Your task to perform on an android device: What's on my calendar tomorrow? Image 0: 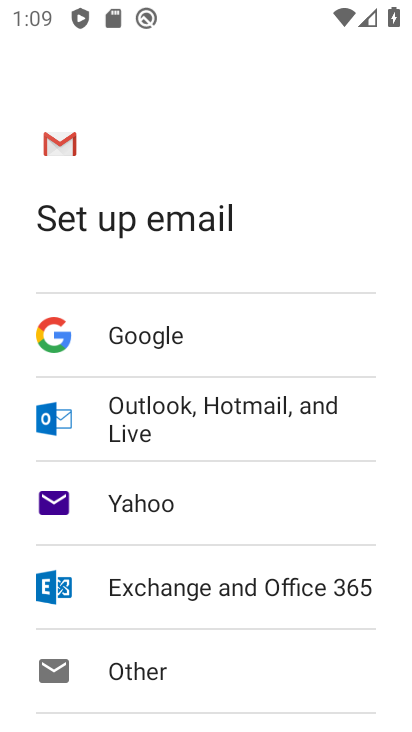
Step 0: press home button
Your task to perform on an android device: What's on my calendar tomorrow? Image 1: 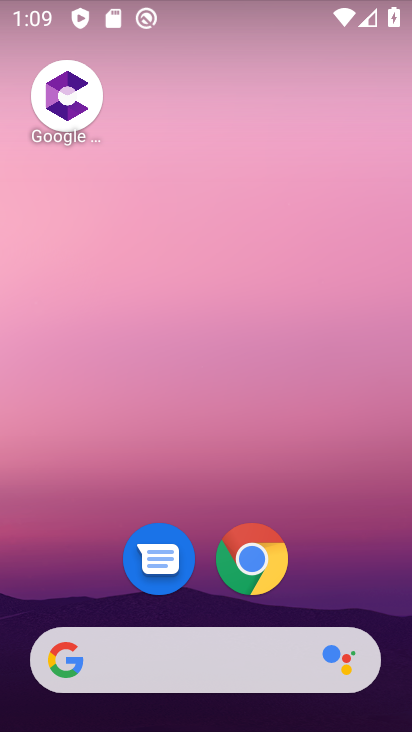
Step 1: drag from (321, 426) to (349, 117)
Your task to perform on an android device: What's on my calendar tomorrow? Image 2: 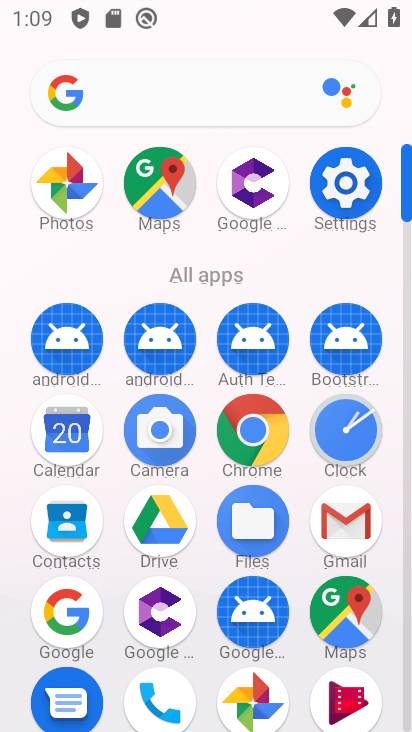
Step 2: click (56, 432)
Your task to perform on an android device: What's on my calendar tomorrow? Image 3: 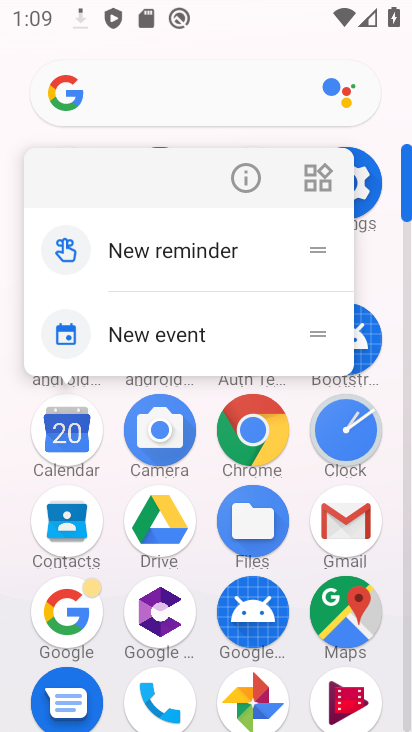
Step 3: click (72, 434)
Your task to perform on an android device: What's on my calendar tomorrow? Image 4: 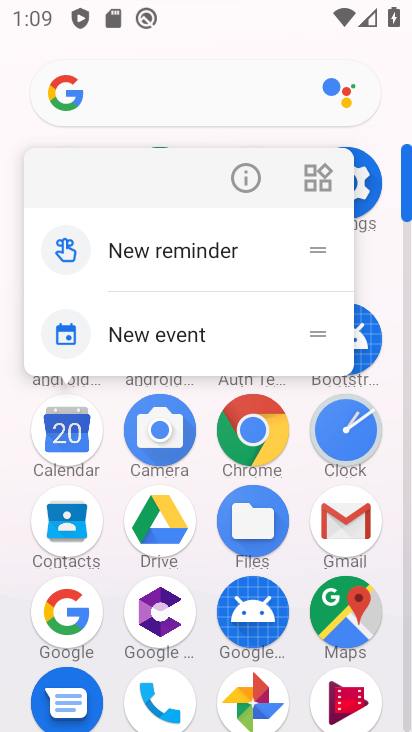
Step 4: click (67, 446)
Your task to perform on an android device: What's on my calendar tomorrow? Image 5: 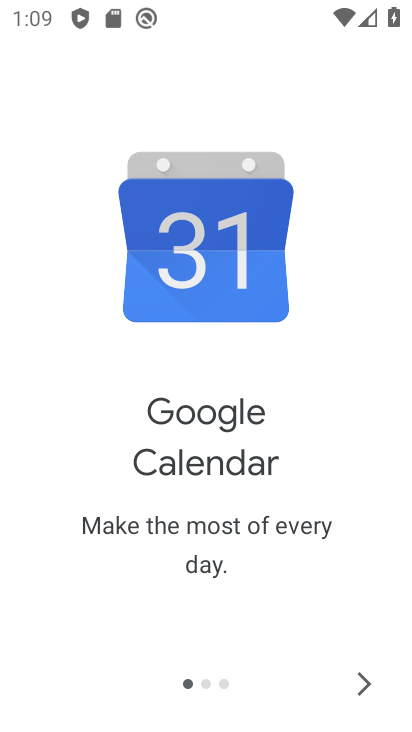
Step 5: click (370, 683)
Your task to perform on an android device: What's on my calendar tomorrow? Image 6: 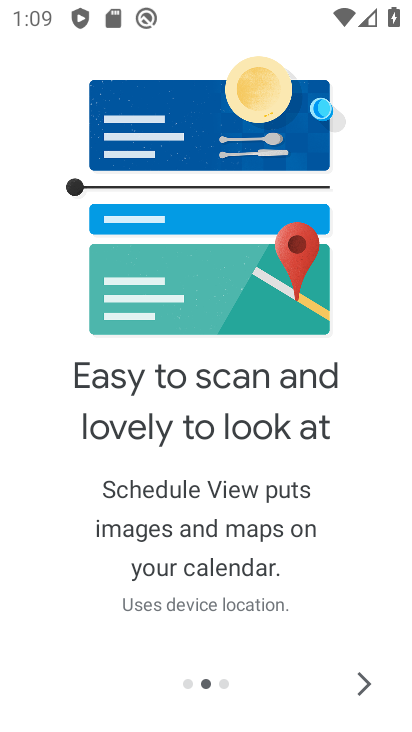
Step 6: click (370, 683)
Your task to perform on an android device: What's on my calendar tomorrow? Image 7: 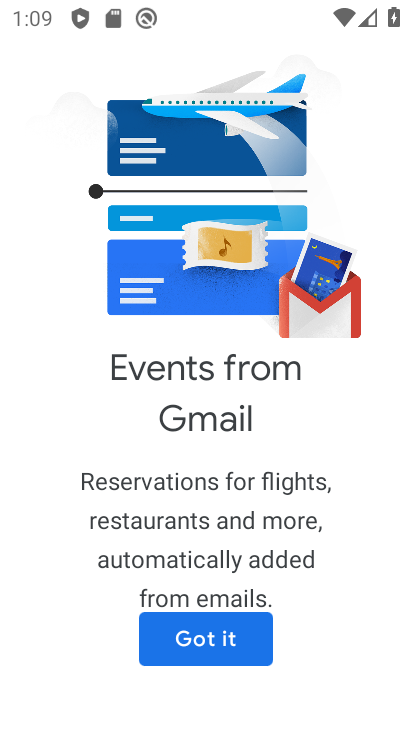
Step 7: click (238, 632)
Your task to perform on an android device: What's on my calendar tomorrow? Image 8: 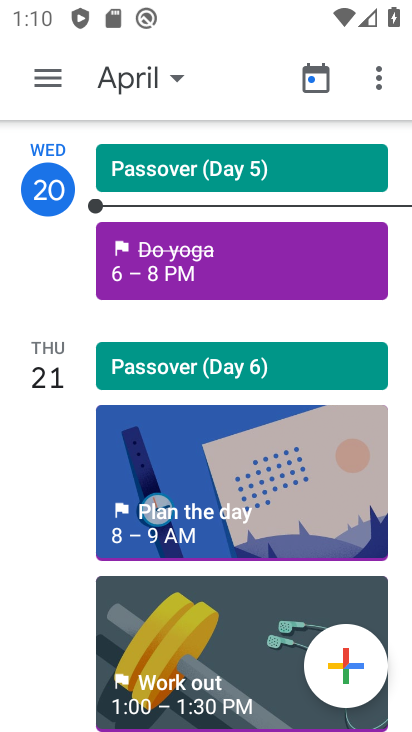
Step 8: click (150, 66)
Your task to perform on an android device: What's on my calendar tomorrow? Image 9: 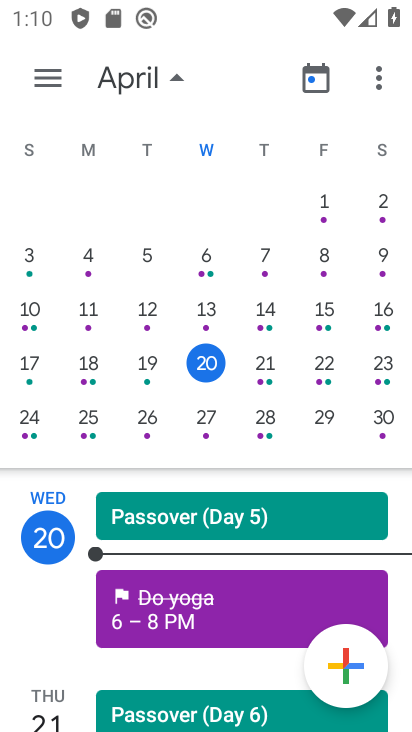
Step 9: click (264, 366)
Your task to perform on an android device: What's on my calendar tomorrow? Image 10: 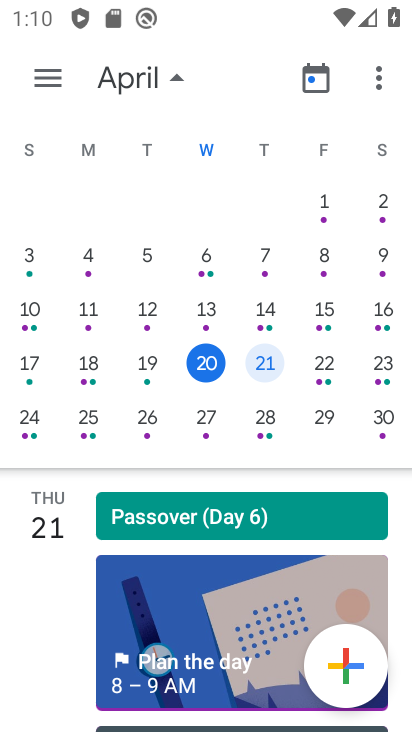
Step 10: task complete